Your task to perform on an android device: Search for razer kraken on amazon.com, select the first entry, add it to the cart, then select checkout. Image 0: 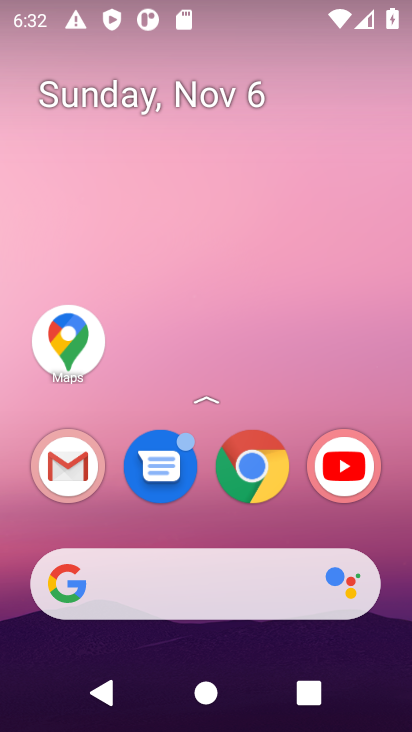
Step 0: drag from (229, 482) to (259, 4)
Your task to perform on an android device: Search for razer kraken on amazon.com, select the first entry, add it to the cart, then select checkout. Image 1: 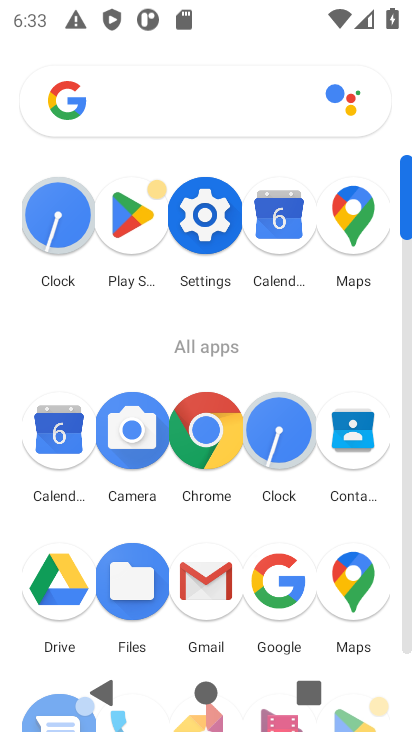
Step 1: click (200, 436)
Your task to perform on an android device: Search for razer kraken on amazon.com, select the first entry, add it to the cart, then select checkout. Image 2: 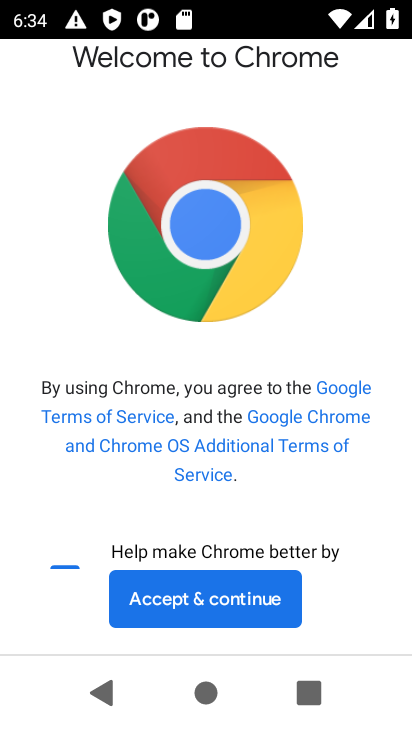
Step 2: click (181, 593)
Your task to perform on an android device: Search for razer kraken on amazon.com, select the first entry, add it to the cart, then select checkout. Image 3: 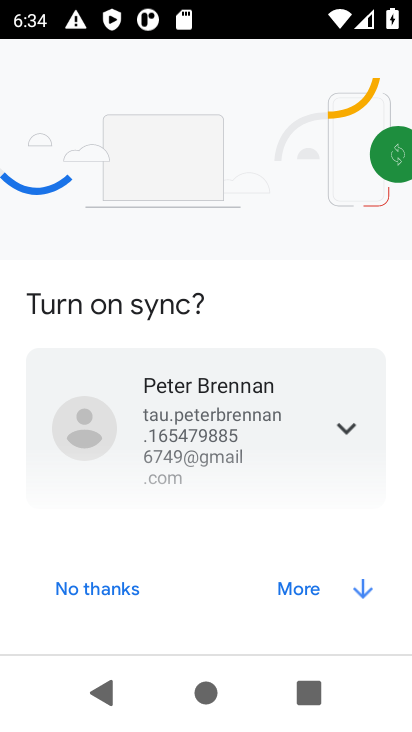
Step 3: click (295, 583)
Your task to perform on an android device: Search for razer kraken on amazon.com, select the first entry, add it to the cart, then select checkout. Image 4: 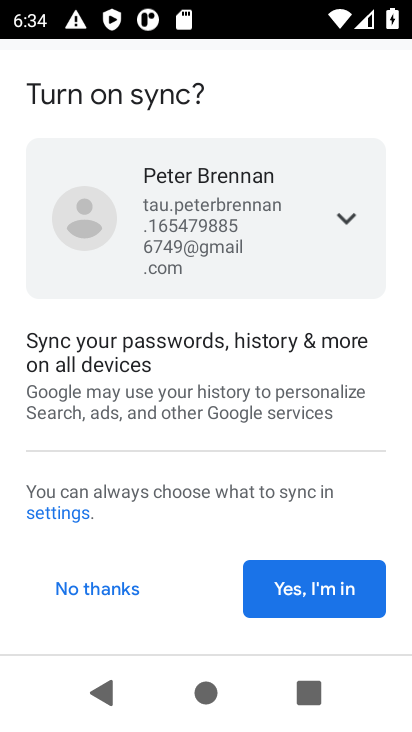
Step 4: click (303, 596)
Your task to perform on an android device: Search for razer kraken on amazon.com, select the first entry, add it to the cart, then select checkout. Image 5: 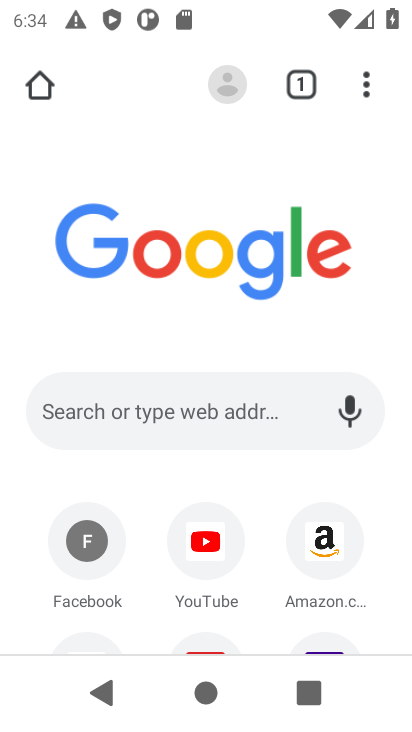
Step 5: click (335, 529)
Your task to perform on an android device: Search for razer kraken on amazon.com, select the first entry, add it to the cart, then select checkout. Image 6: 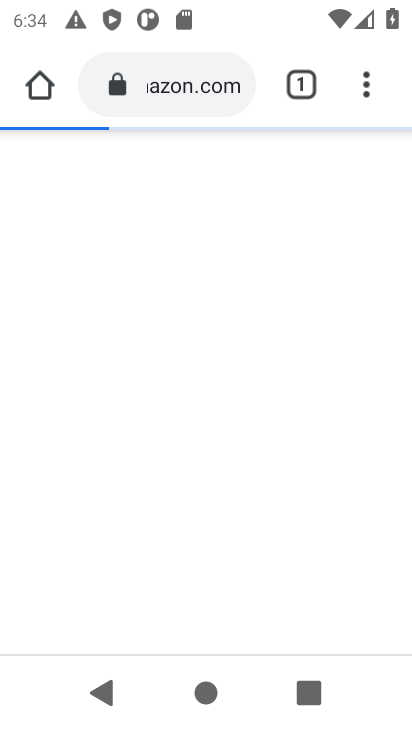
Step 6: click (316, 540)
Your task to perform on an android device: Search for razer kraken on amazon.com, select the first entry, add it to the cart, then select checkout. Image 7: 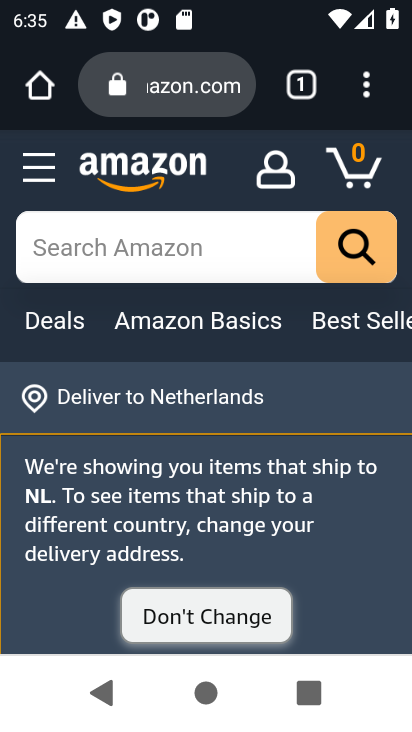
Step 7: click (182, 242)
Your task to perform on an android device: Search for razer kraken on amazon.com, select the first entry, add it to the cart, then select checkout. Image 8: 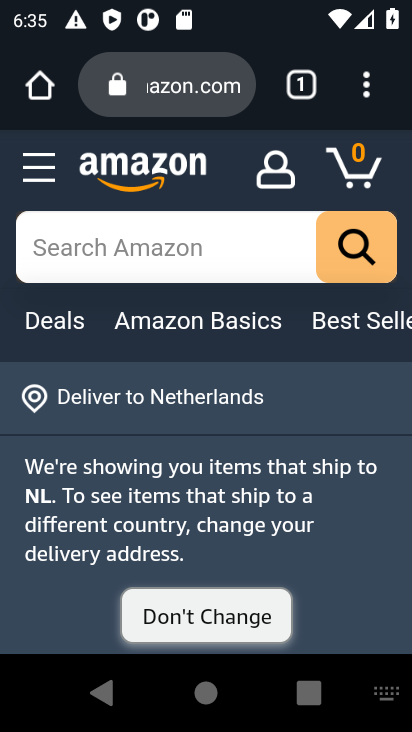
Step 8: type "kraken"
Your task to perform on an android device: Search for razer kraken on amazon.com, select the first entry, add it to the cart, then select checkout. Image 9: 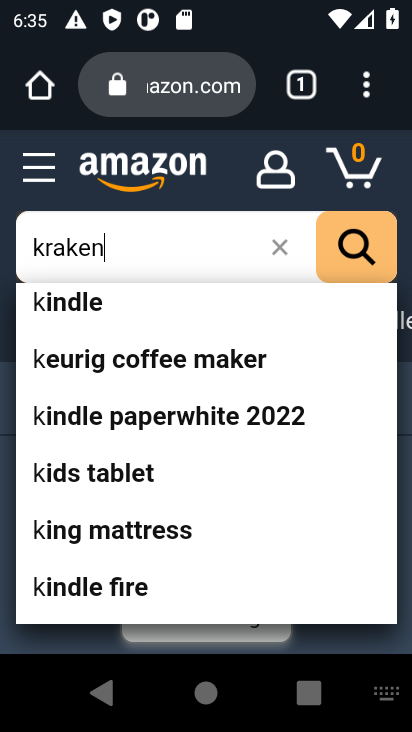
Step 9: type ""
Your task to perform on an android device: Search for razer kraken on amazon.com, select the first entry, add it to the cart, then select checkout. Image 10: 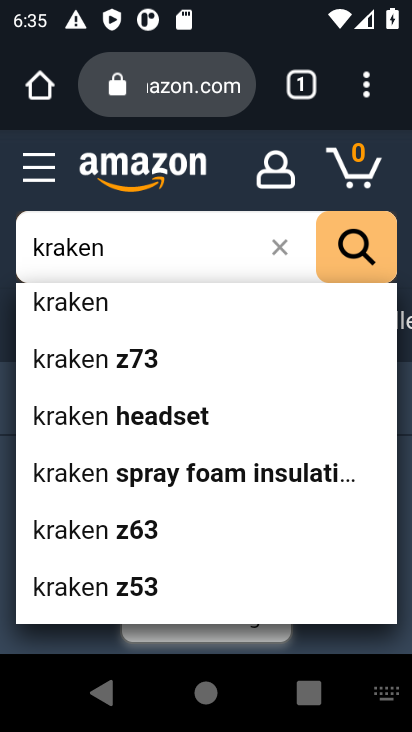
Step 10: type " razer"
Your task to perform on an android device: Search for razer kraken on amazon.com, select the first entry, add it to the cart, then select checkout. Image 11: 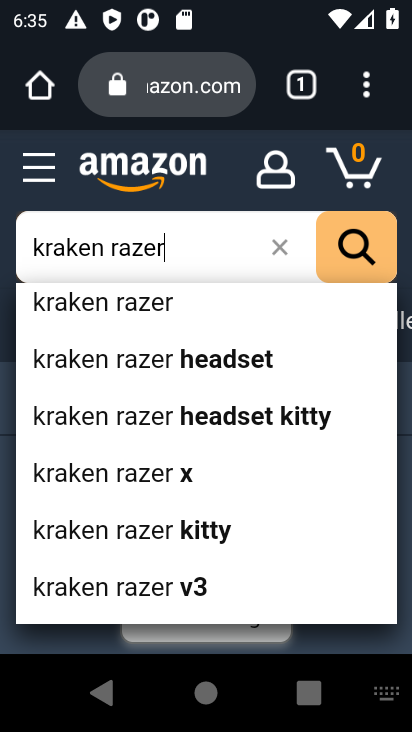
Step 11: type ""
Your task to perform on an android device: Search for razer kraken on amazon.com, select the first entry, add it to the cart, then select checkout. Image 12: 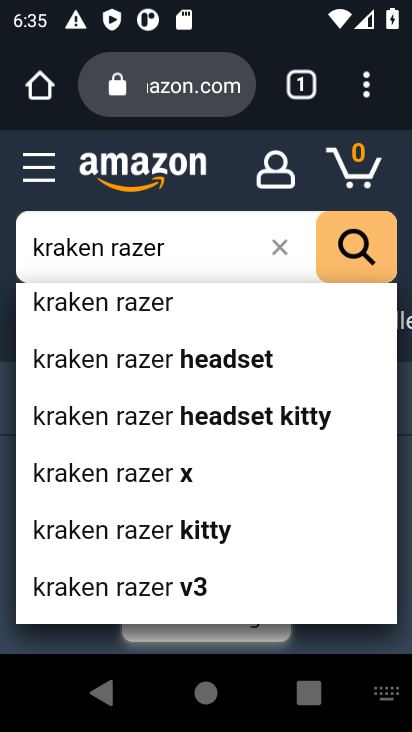
Step 12: click (170, 297)
Your task to perform on an android device: Search for razer kraken on amazon.com, select the first entry, add it to the cart, then select checkout. Image 13: 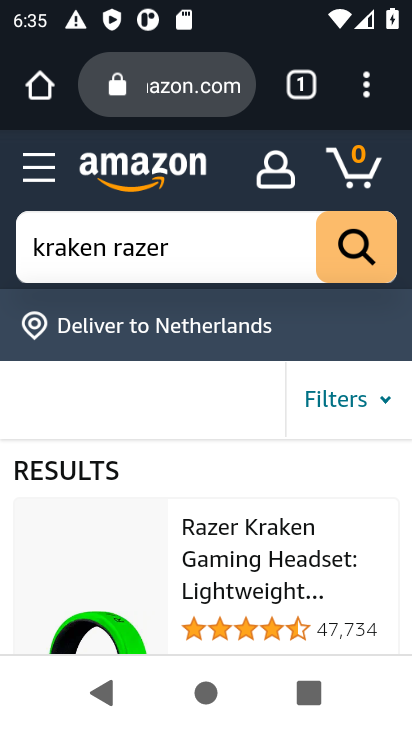
Step 13: click (274, 533)
Your task to perform on an android device: Search for razer kraken on amazon.com, select the first entry, add it to the cart, then select checkout. Image 14: 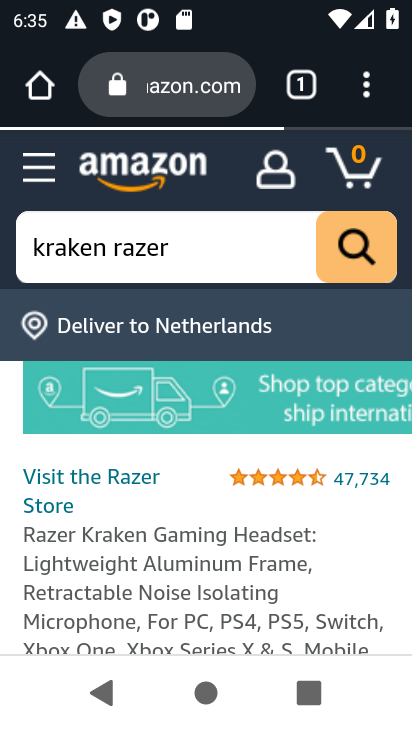
Step 14: drag from (218, 592) to (224, 359)
Your task to perform on an android device: Search for razer kraken on amazon.com, select the first entry, add it to the cart, then select checkout. Image 15: 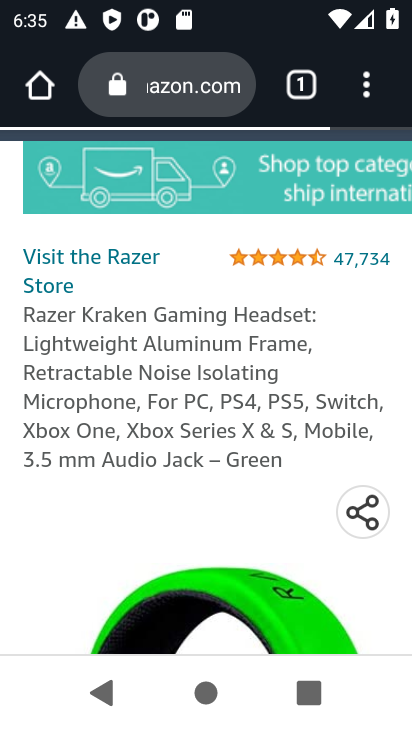
Step 15: drag from (238, 563) to (244, 303)
Your task to perform on an android device: Search for razer kraken on amazon.com, select the first entry, add it to the cart, then select checkout. Image 16: 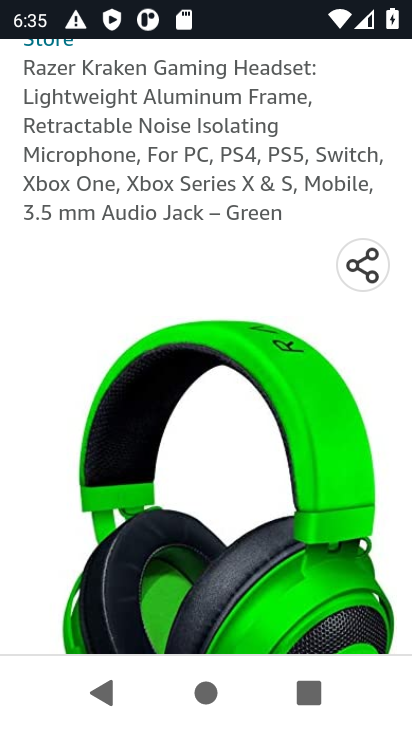
Step 16: drag from (257, 547) to (281, 294)
Your task to perform on an android device: Search for razer kraken on amazon.com, select the first entry, add it to the cart, then select checkout. Image 17: 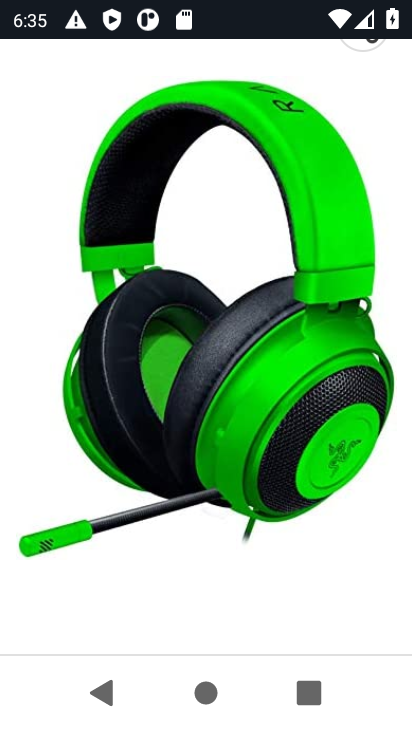
Step 17: drag from (227, 584) to (249, 470)
Your task to perform on an android device: Search for razer kraken on amazon.com, select the first entry, add it to the cart, then select checkout. Image 18: 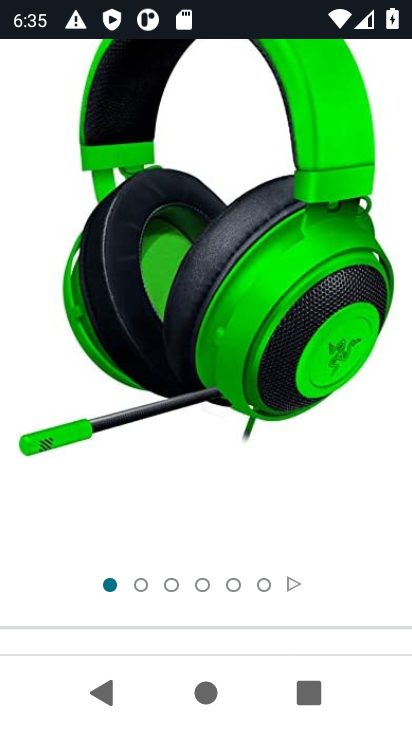
Step 18: drag from (239, 538) to (260, 247)
Your task to perform on an android device: Search for razer kraken on amazon.com, select the first entry, add it to the cart, then select checkout. Image 19: 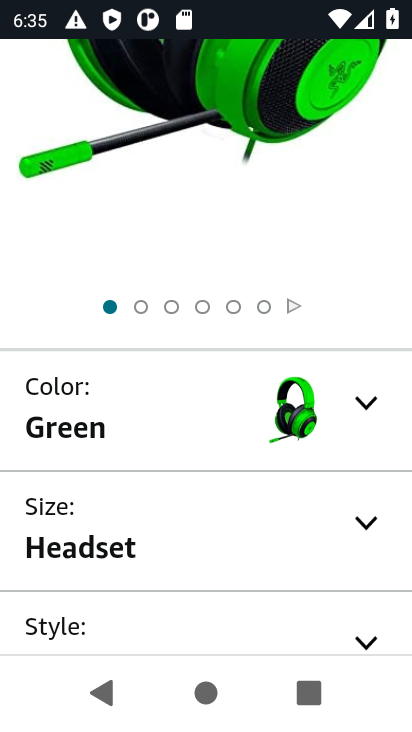
Step 19: drag from (185, 593) to (233, 269)
Your task to perform on an android device: Search for razer kraken on amazon.com, select the first entry, add it to the cart, then select checkout. Image 20: 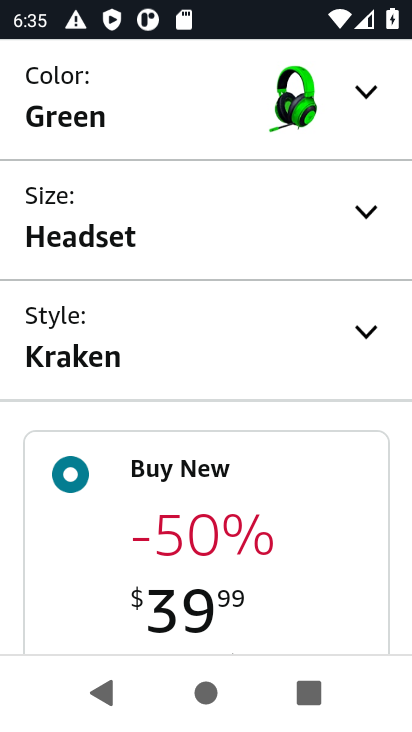
Step 20: drag from (240, 611) to (215, 398)
Your task to perform on an android device: Search for razer kraken on amazon.com, select the first entry, add it to the cart, then select checkout. Image 21: 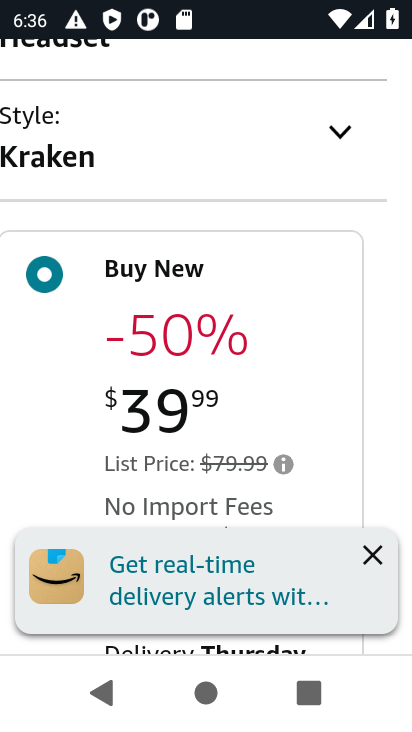
Step 21: drag from (296, 511) to (299, 208)
Your task to perform on an android device: Search for razer kraken on amazon.com, select the first entry, add it to the cart, then select checkout. Image 22: 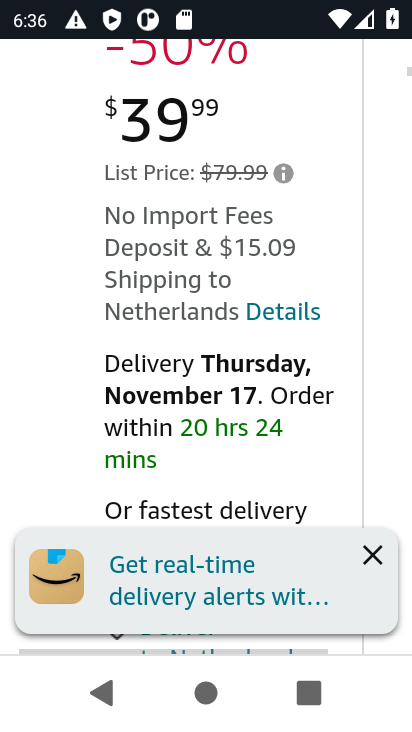
Step 22: drag from (206, 461) to (218, 176)
Your task to perform on an android device: Search for razer kraken on amazon.com, select the first entry, add it to the cart, then select checkout. Image 23: 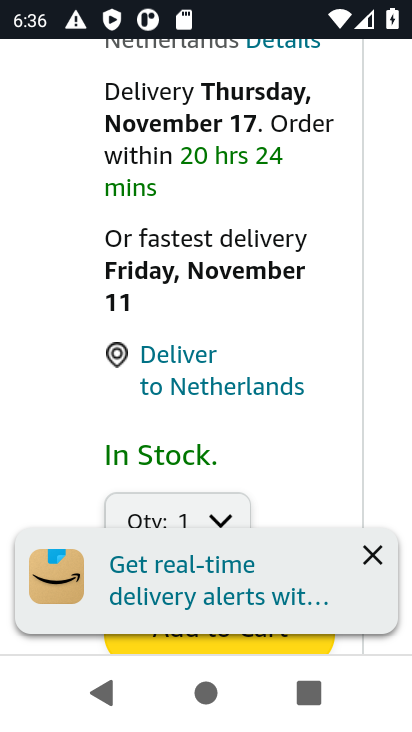
Step 23: drag from (260, 498) to (270, 220)
Your task to perform on an android device: Search for razer kraken on amazon.com, select the first entry, add it to the cart, then select checkout. Image 24: 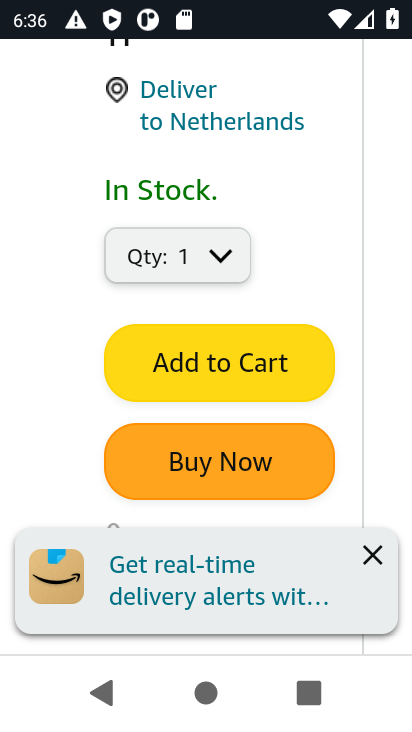
Step 24: click (261, 369)
Your task to perform on an android device: Search for razer kraken on amazon.com, select the first entry, add it to the cart, then select checkout. Image 25: 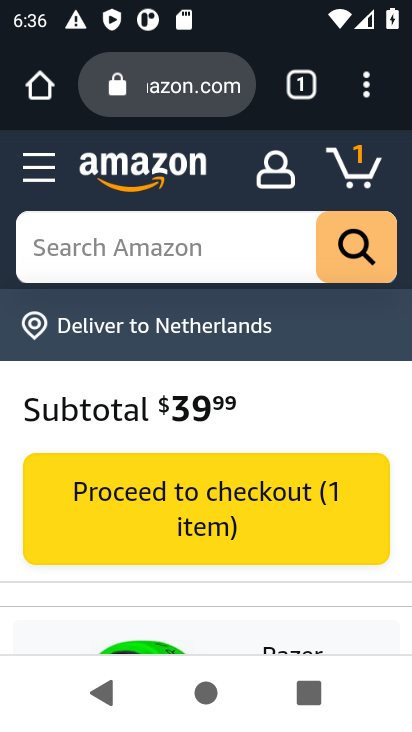
Step 25: task complete